Your task to perform on an android device: star an email in the gmail app Image 0: 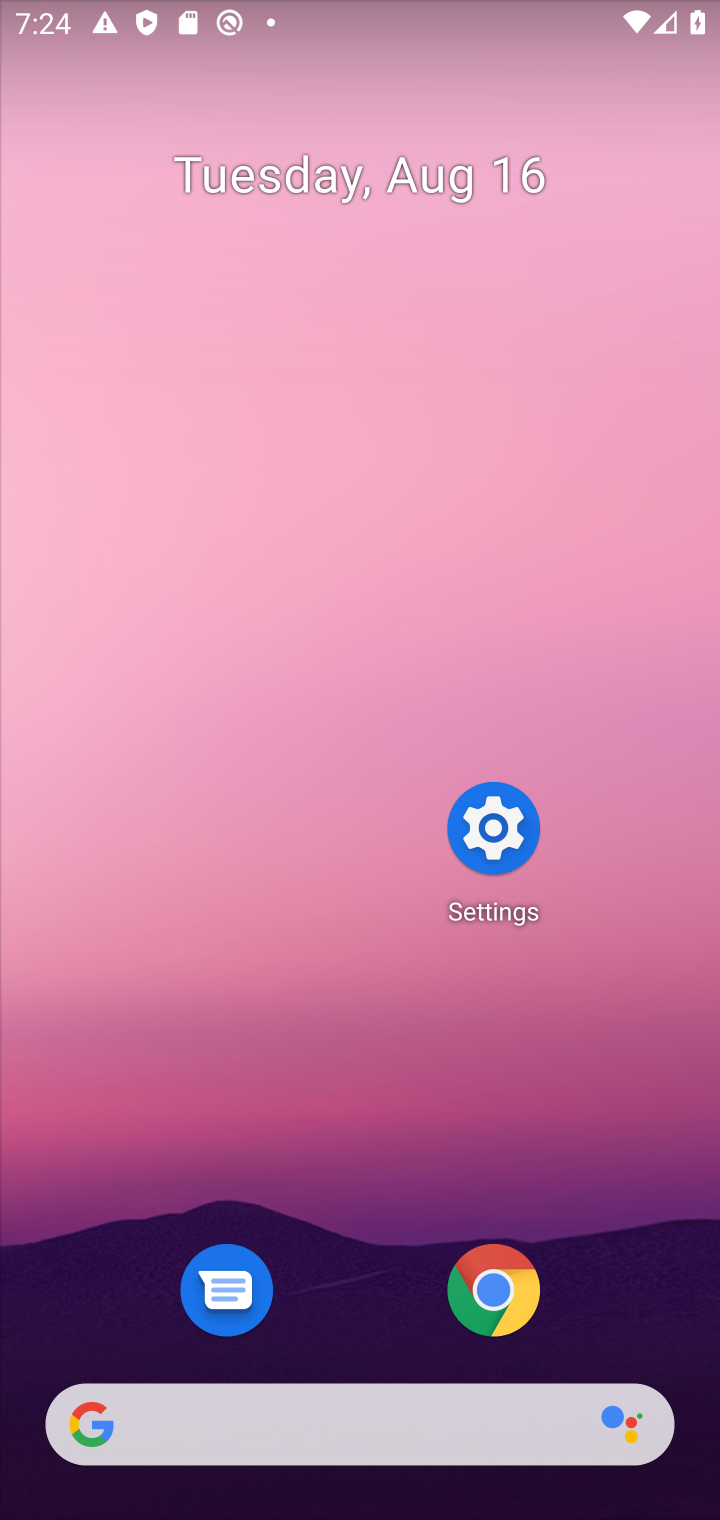
Step 0: drag from (329, 1420) to (567, 235)
Your task to perform on an android device: star an email in the gmail app Image 1: 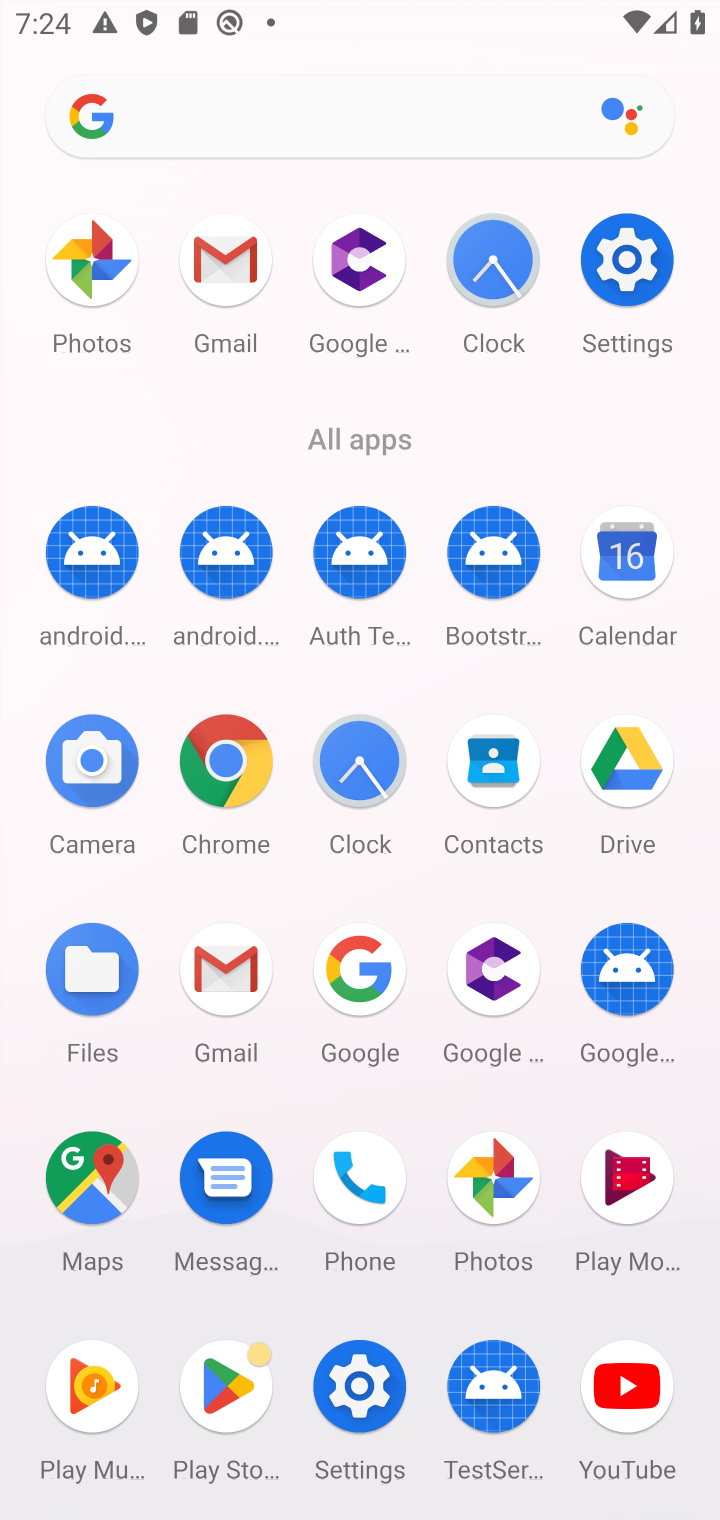
Step 1: click (235, 965)
Your task to perform on an android device: star an email in the gmail app Image 2: 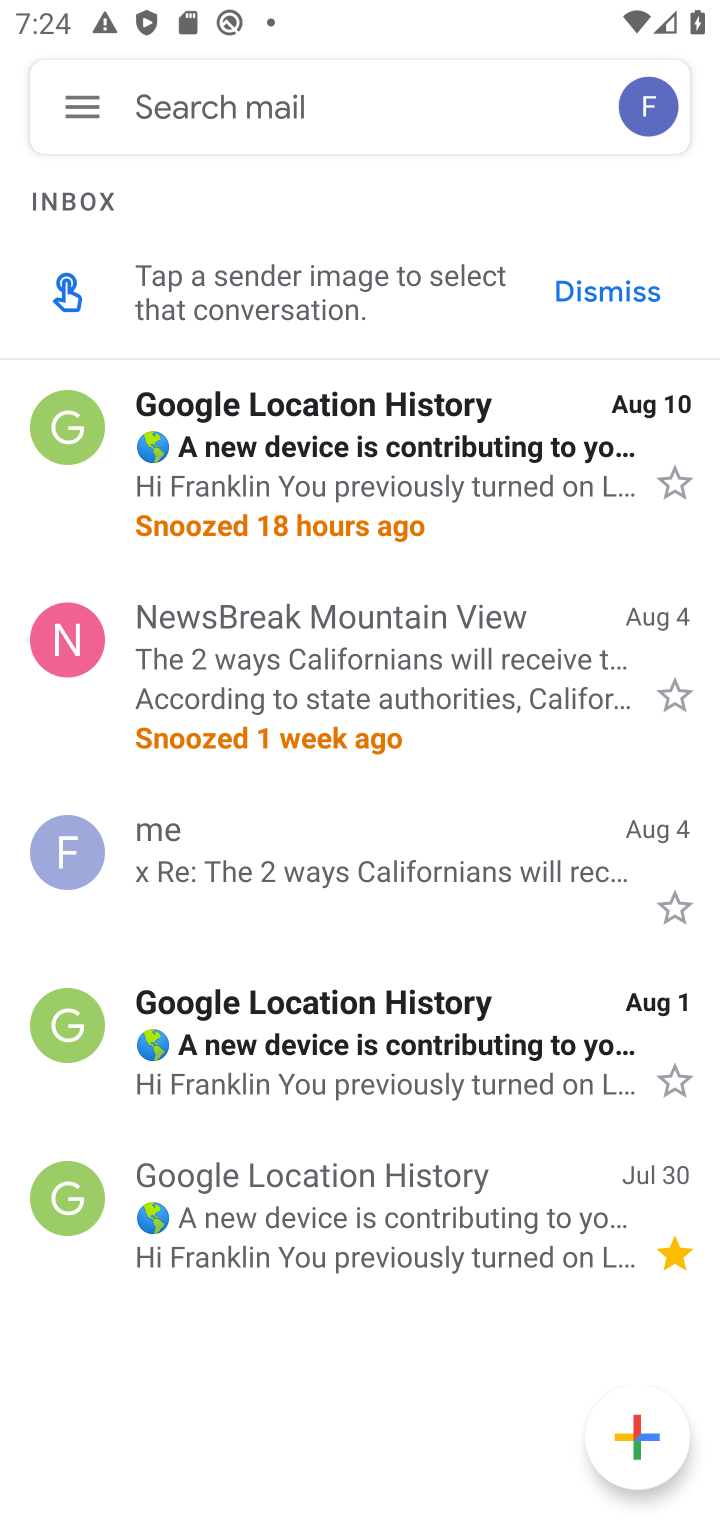
Step 2: click (83, 424)
Your task to perform on an android device: star an email in the gmail app Image 3: 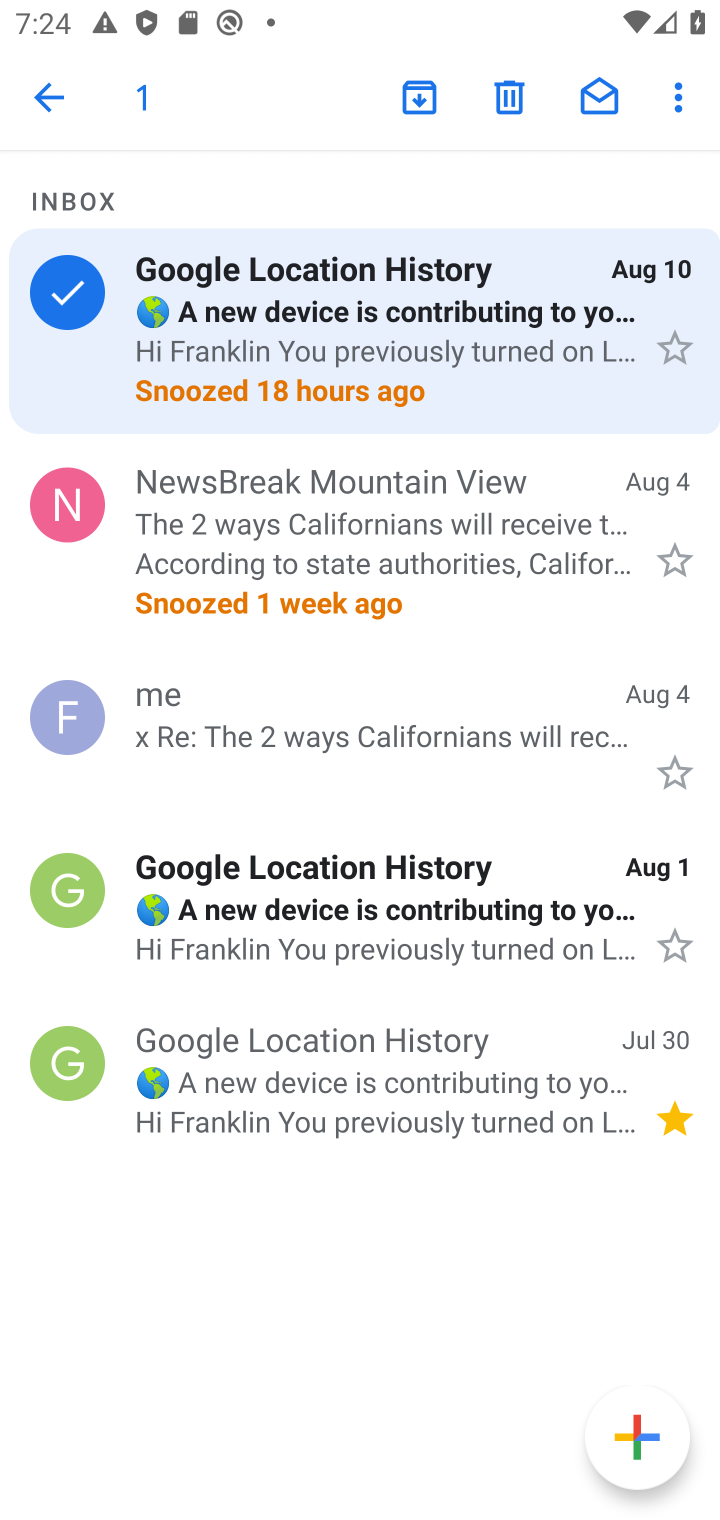
Step 3: click (670, 100)
Your task to perform on an android device: star an email in the gmail app Image 4: 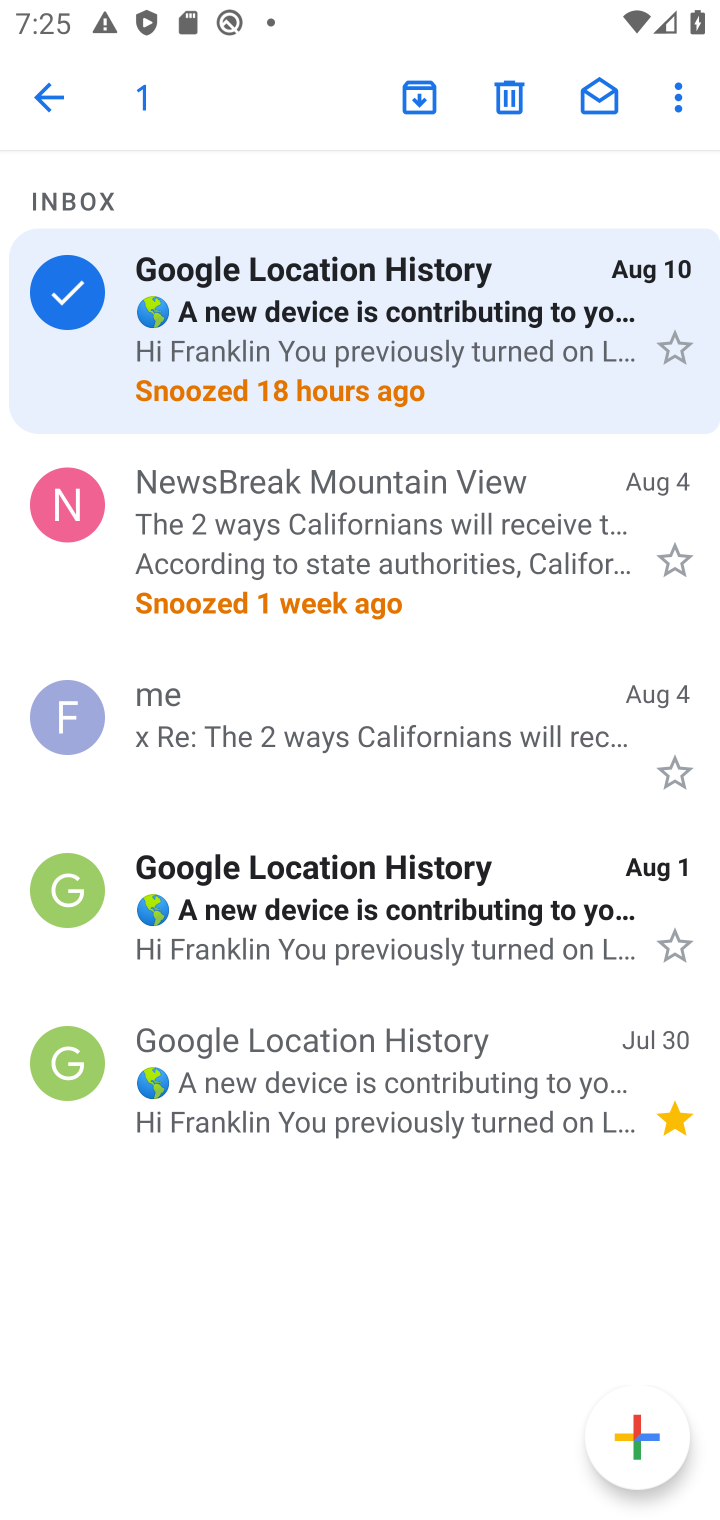
Step 4: click (681, 88)
Your task to perform on an android device: star an email in the gmail app Image 5: 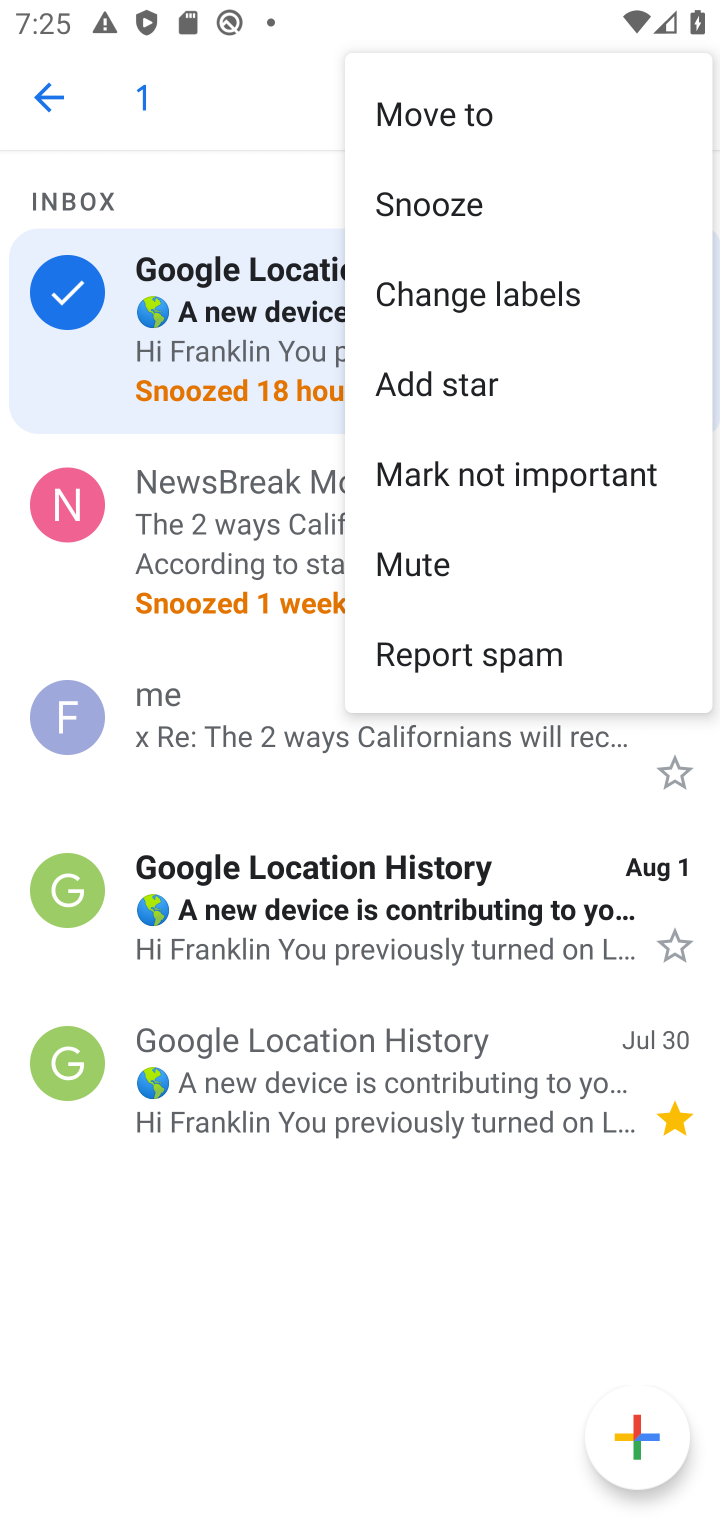
Step 5: click (432, 388)
Your task to perform on an android device: star an email in the gmail app Image 6: 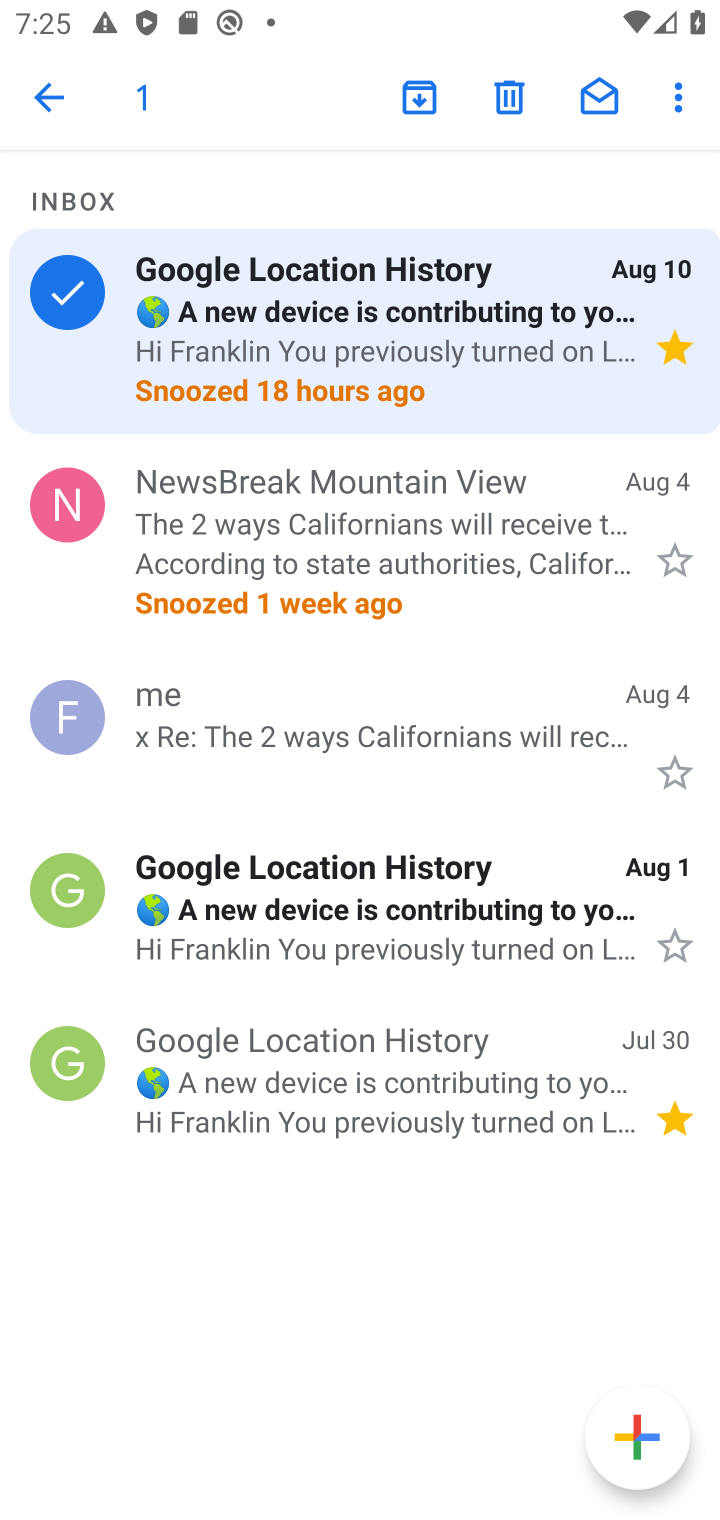
Step 6: click (62, 309)
Your task to perform on an android device: star an email in the gmail app Image 7: 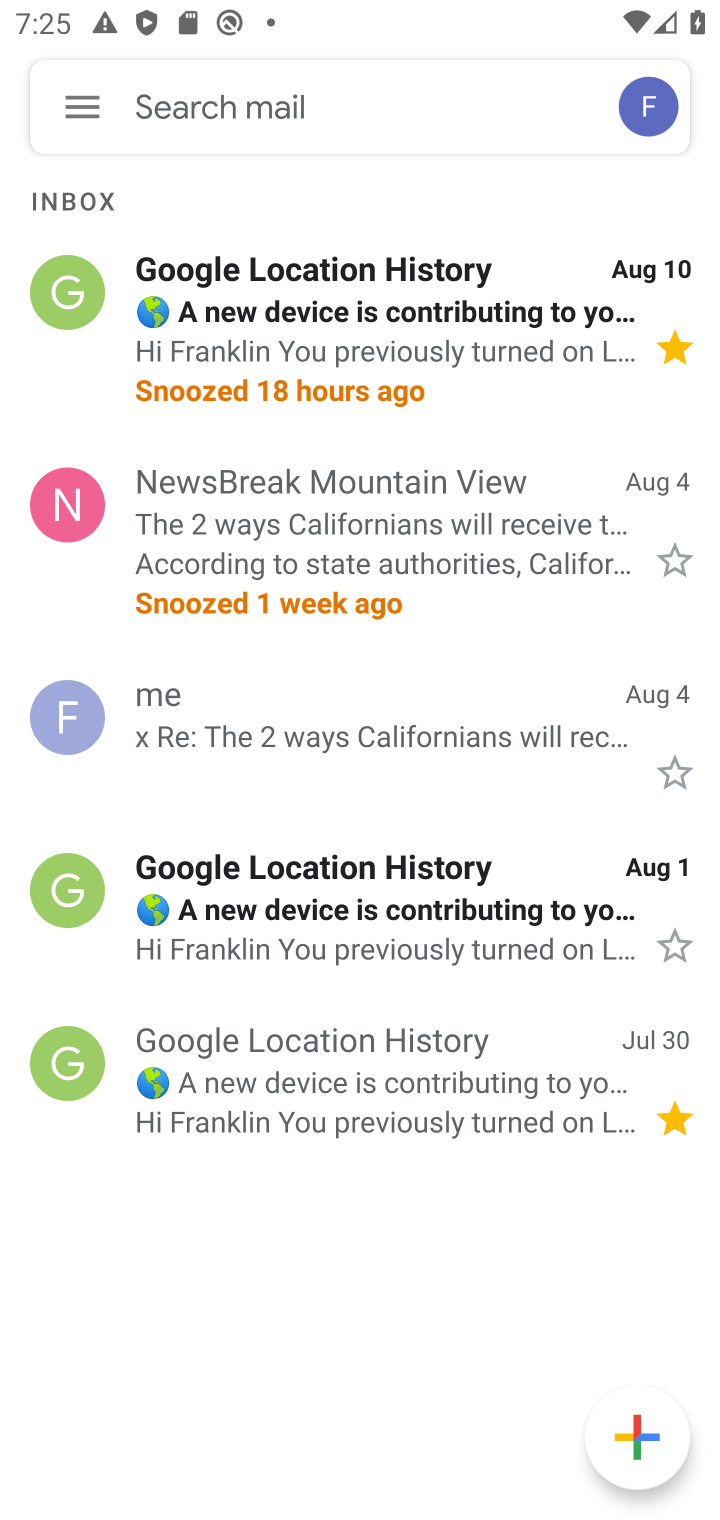
Step 7: task complete